Your task to perform on an android device: turn on priority inbox in the gmail app Image 0: 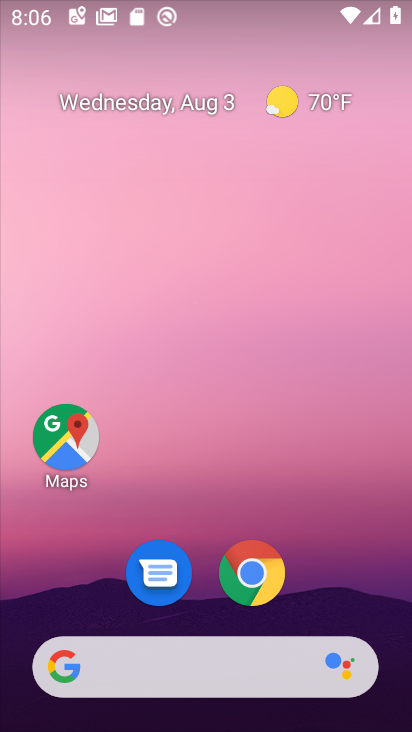
Step 0: drag from (371, 619) to (343, 7)
Your task to perform on an android device: turn on priority inbox in the gmail app Image 1: 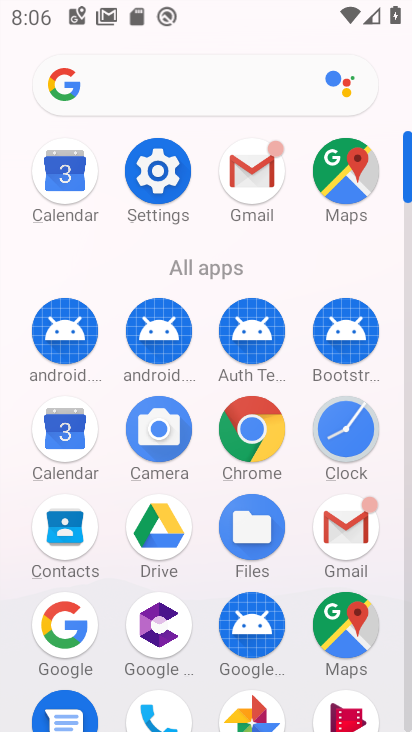
Step 1: click (245, 179)
Your task to perform on an android device: turn on priority inbox in the gmail app Image 2: 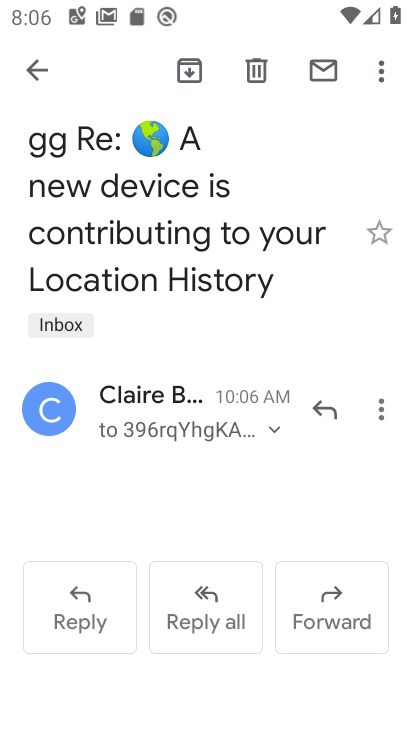
Step 2: click (31, 67)
Your task to perform on an android device: turn on priority inbox in the gmail app Image 3: 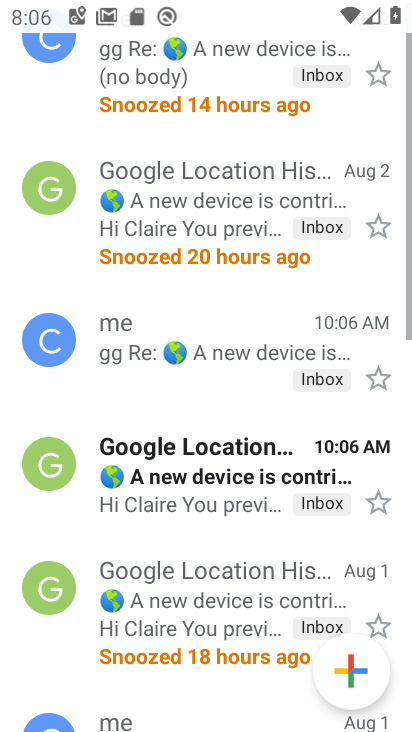
Step 3: drag from (61, 124) to (137, 644)
Your task to perform on an android device: turn on priority inbox in the gmail app Image 4: 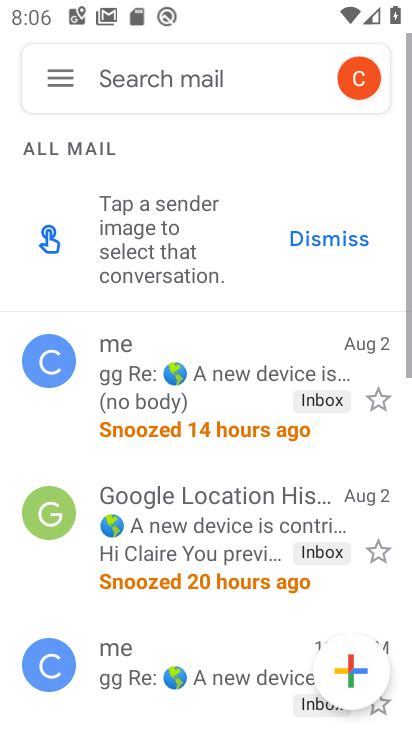
Step 4: click (65, 85)
Your task to perform on an android device: turn on priority inbox in the gmail app Image 5: 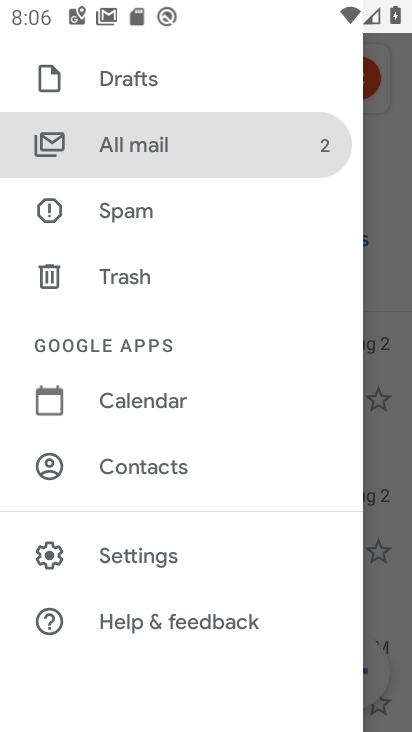
Step 5: click (174, 561)
Your task to perform on an android device: turn on priority inbox in the gmail app Image 6: 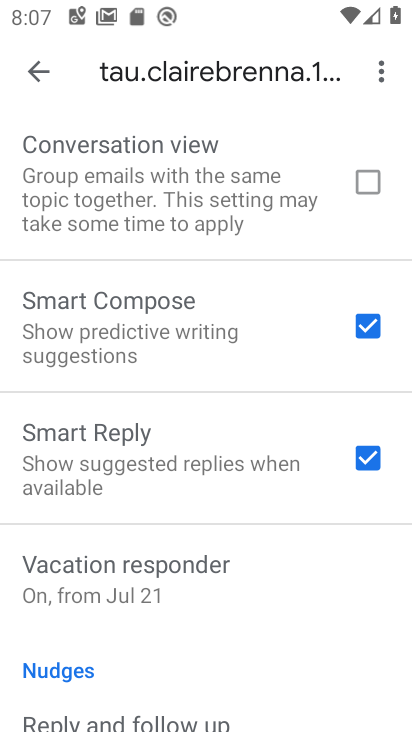
Step 6: drag from (143, 174) to (147, 681)
Your task to perform on an android device: turn on priority inbox in the gmail app Image 7: 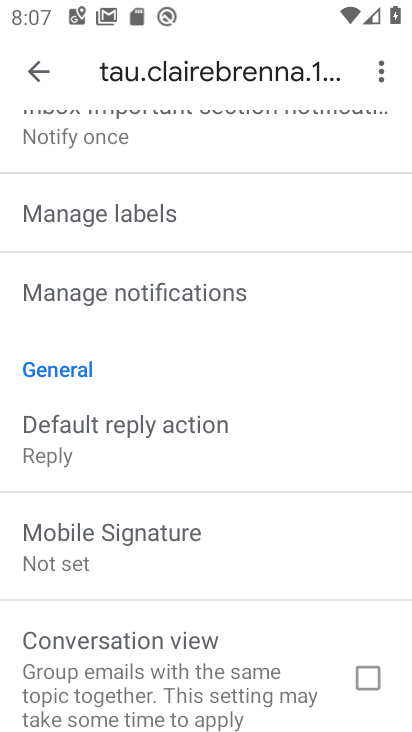
Step 7: drag from (171, 206) to (192, 547)
Your task to perform on an android device: turn on priority inbox in the gmail app Image 8: 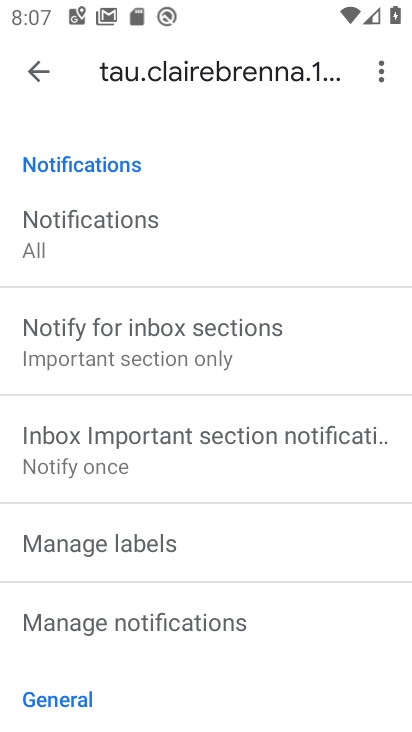
Step 8: drag from (193, 234) to (199, 582)
Your task to perform on an android device: turn on priority inbox in the gmail app Image 9: 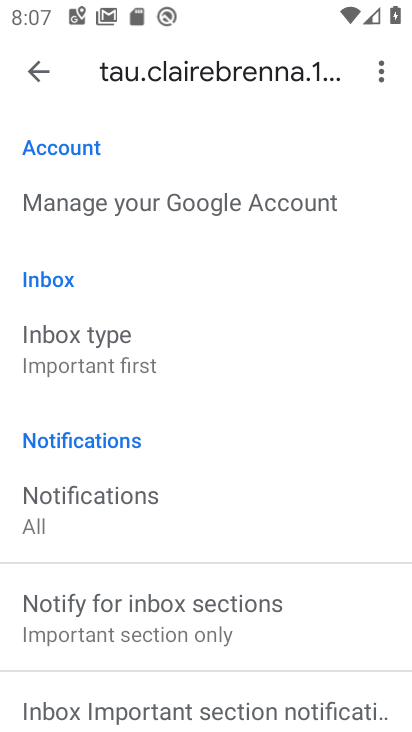
Step 9: click (84, 363)
Your task to perform on an android device: turn on priority inbox in the gmail app Image 10: 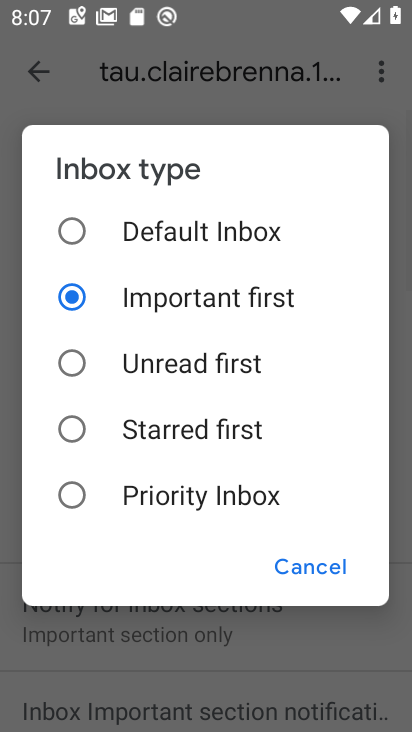
Step 10: click (72, 500)
Your task to perform on an android device: turn on priority inbox in the gmail app Image 11: 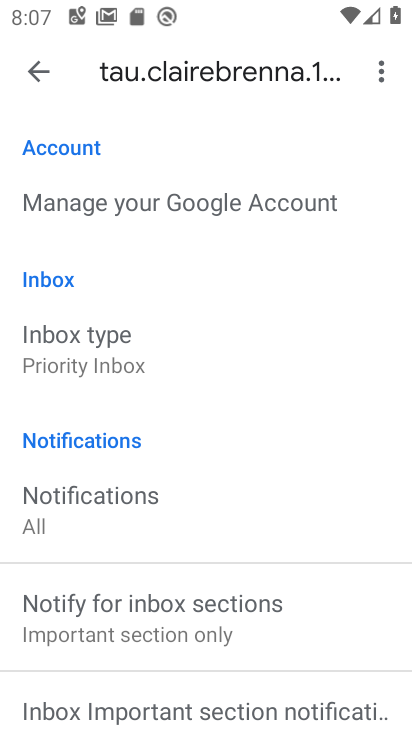
Step 11: task complete